Your task to perform on an android device: read, delete, or share a saved page in the chrome app Image 0: 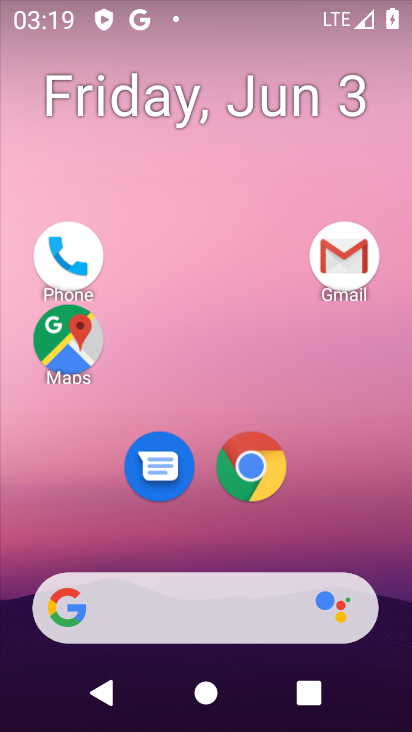
Step 0: click (253, 483)
Your task to perform on an android device: read, delete, or share a saved page in the chrome app Image 1: 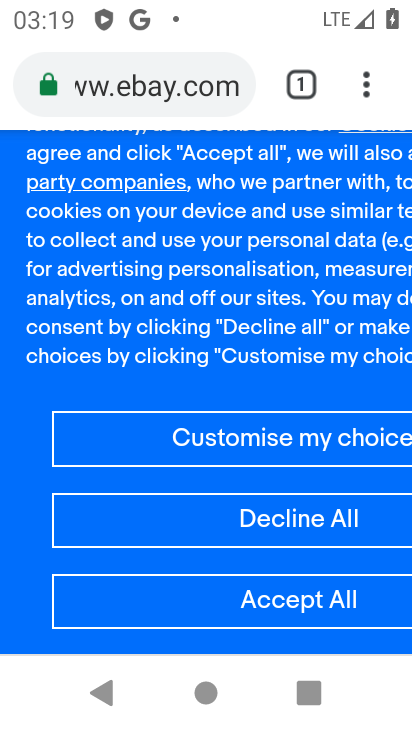
Step 1: click (359, 93)
Your task to perform on an android device: read, delete, or share a saved page in the chrome app Image 2: 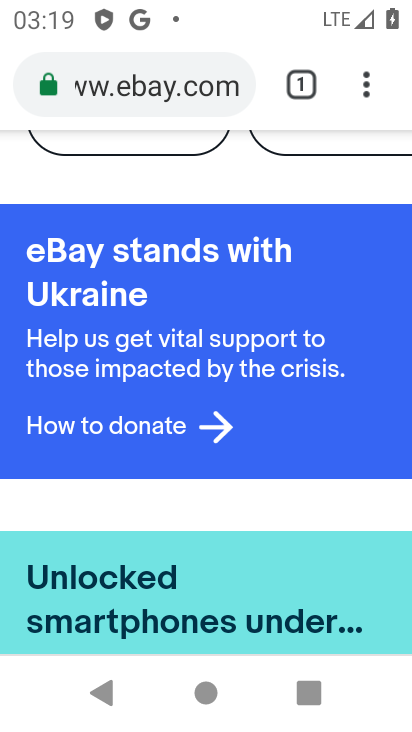
Step 2: click (363, 97)
Your task to perform on an android device: read, delete, or share a saved page in the chrome app Image 3: 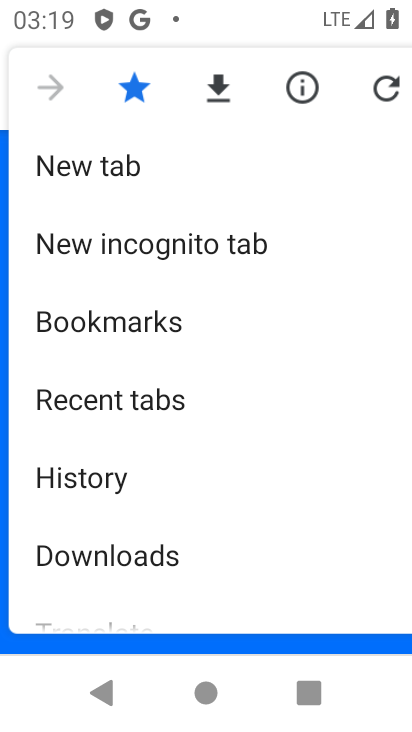
Step 3: task complete